Your task to perform on an android device: Turn off the flashlight Image 0: 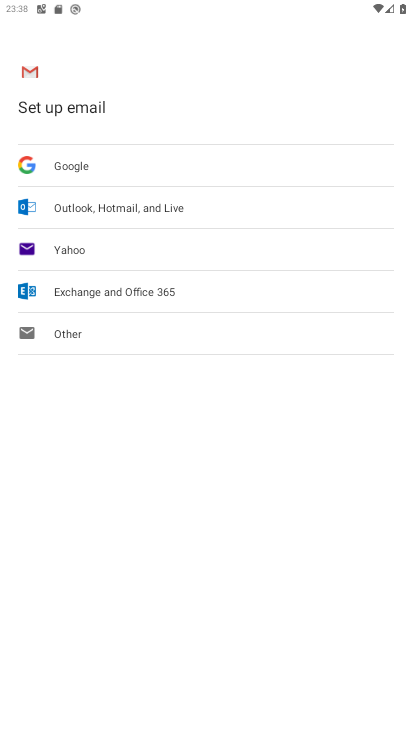
Step 0: press home button
Your task to perform on an android device: Turn off the flashlight Image 1: 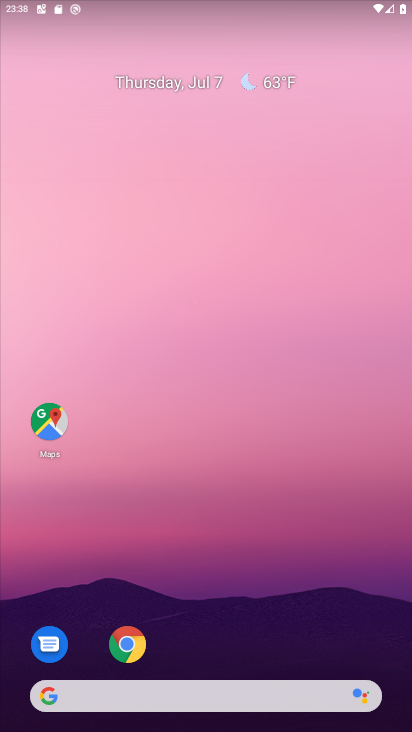
Step 1: drag from (221, 719) to (221, 79)
Your task to perform on an android device: Turn off the flashlight Image 2: 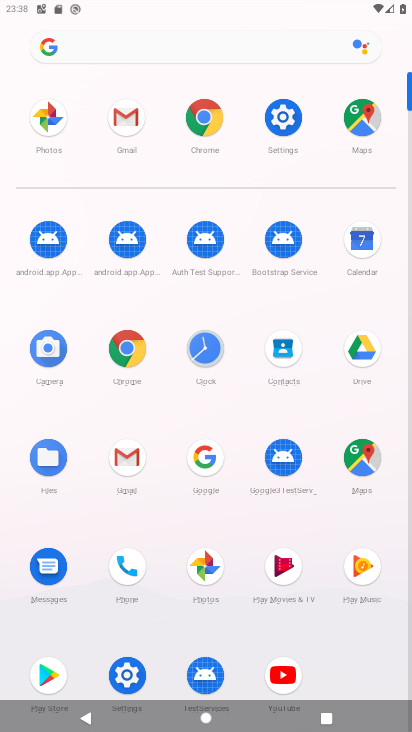
Step 2: click (281, 117)
Your task to perform on an android device: Turn off the flashlight Image 3: 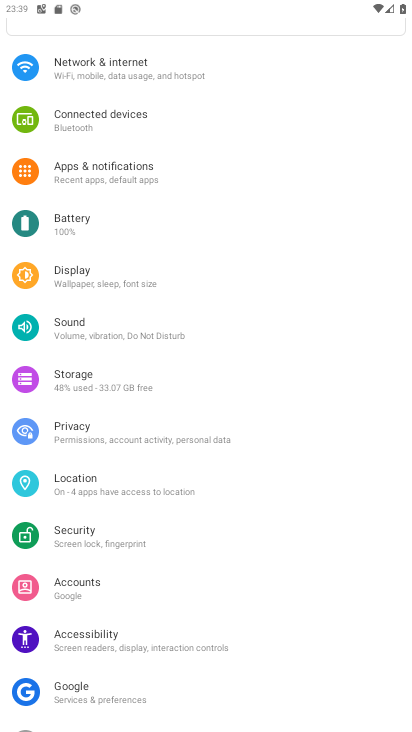
Step 3: drag from (209, 671) to (195, 489)
Your task to perform on an android device: Turn off the flashlight Image 4: 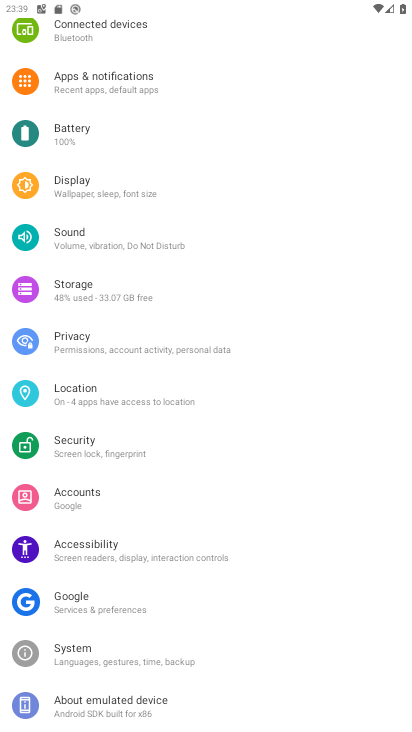
Step 4: drag from (187, 286) to (187, 163)
Your task to perform on an android device: Turn off the flashlight Image 5: 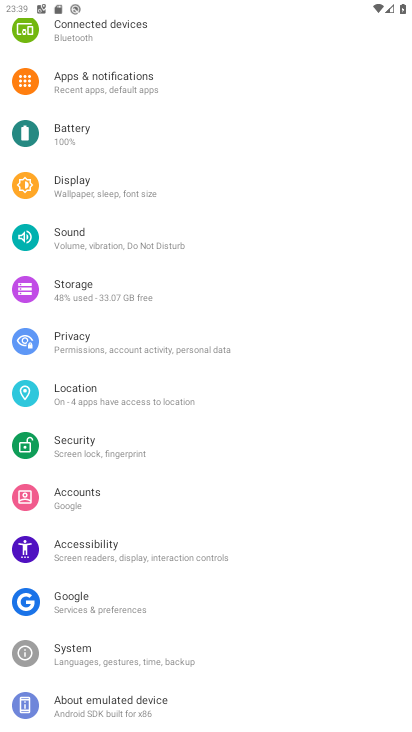
Step 5: drag from (169, 678) to (164, 606)
Your task to perform on an android device: Turn off the flashlight Image 6: 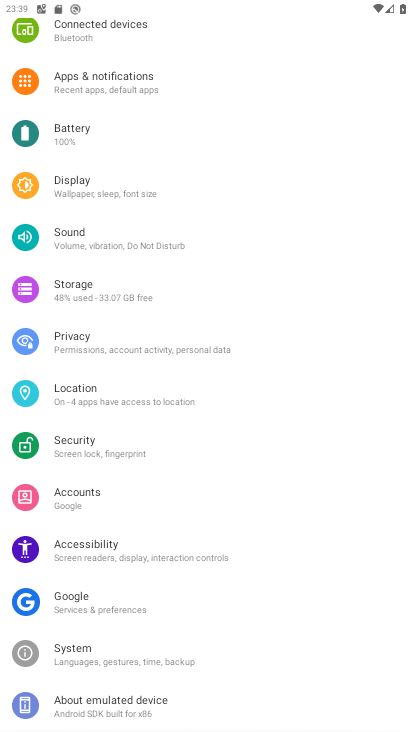
Step 6: click (138, 237)
Your task to perform on an android device: Turn off the flashlight Image 7: 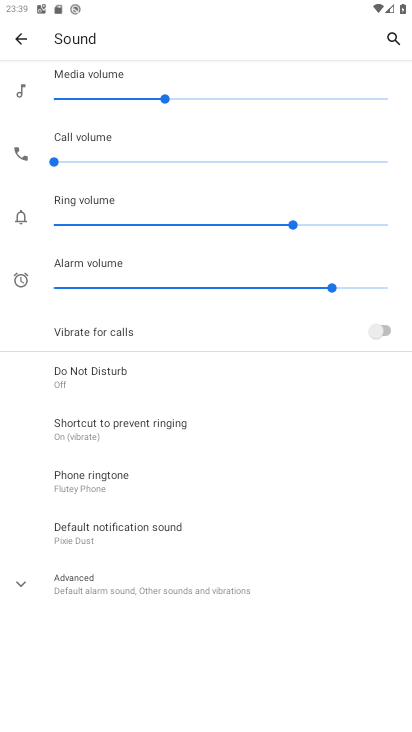
Step 7: click (18, 35)
Your task to perform on an android device: Turn off the flashlight Image 8: 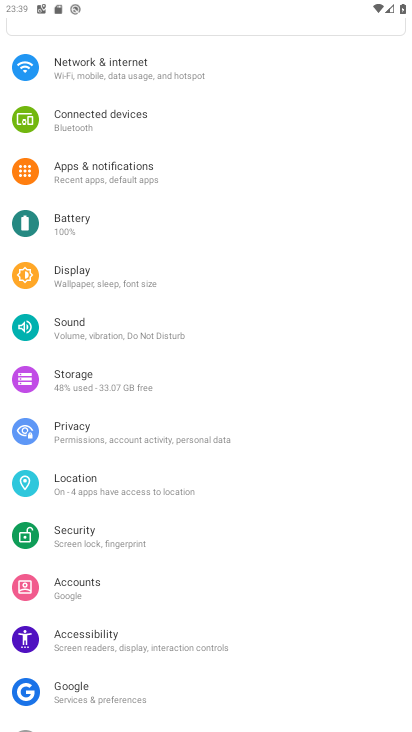
Step 8: task complete